Your task to perform on an android device: Open sound settings Image 0: 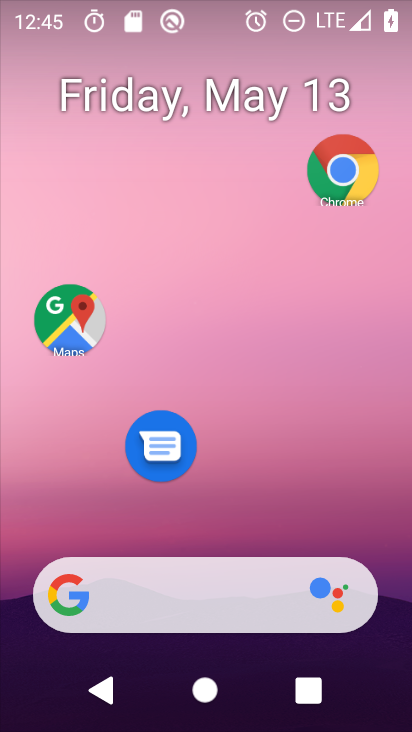
Step 0: drag from (212, 613) to (305, 10)
Your task to perform on an android device: Open sound settings Image 1: 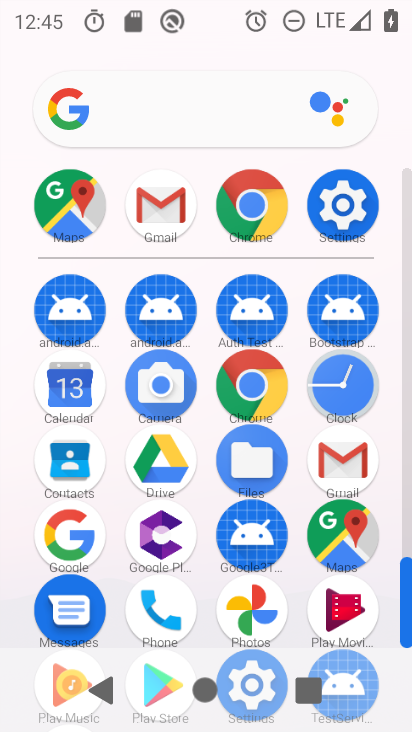
Step 1: click (333, 201)
Your task to perform on an android device: Open sound settings Image 2: 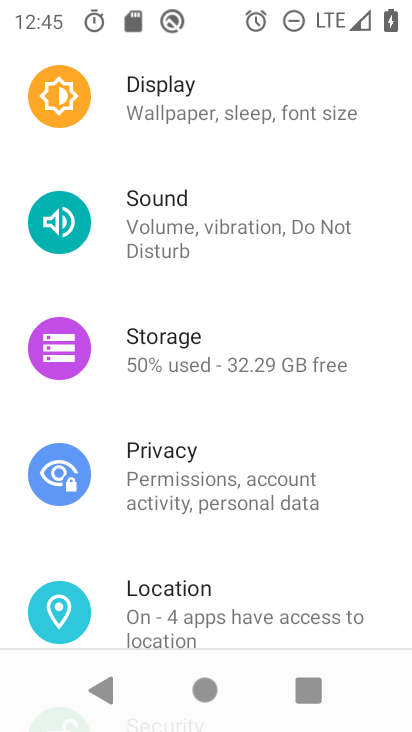
Step 2: click (220, 234)
Your task to perform on an android device: Open sound settings Image 3: 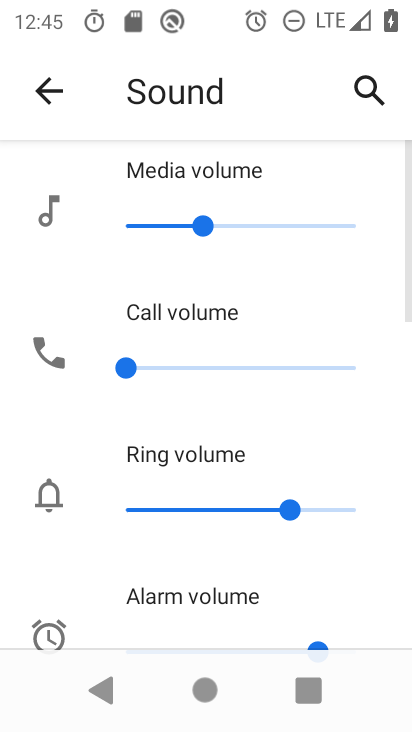
Step 3: task complete